Your task to perform on an android device: turn off priority inbox in the gmail app Image 0: 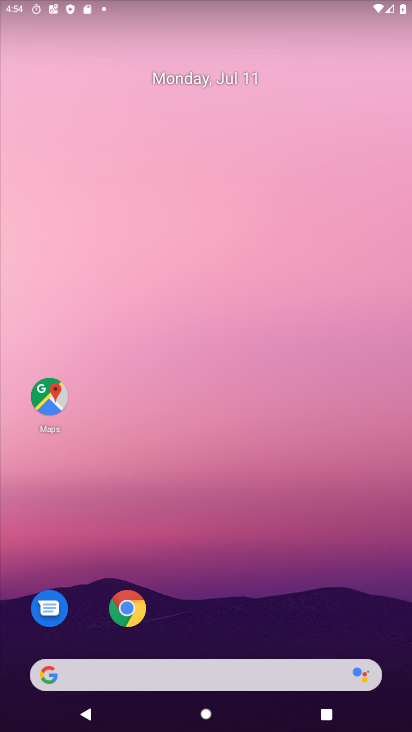
Step 0: drag from (268, 675) to (270, 243)
Your task to perform on an android device: turn off priority inbox in the gmail app Image 1: 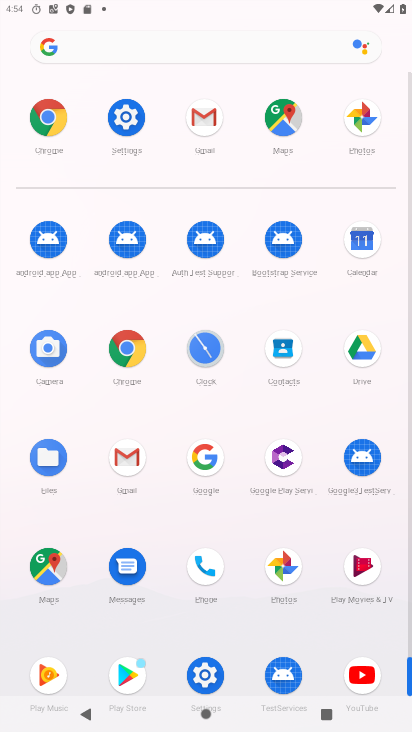
Step 1: click (127, 457)
Your task to perform on an android device: turn off priority inbox in the gmail app Image 2: 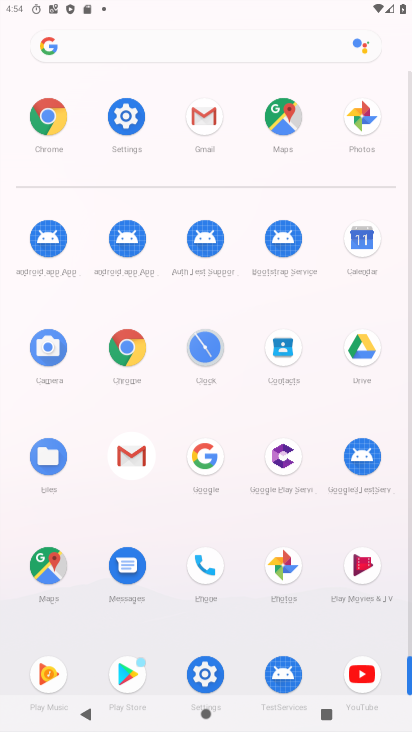
Step 2: click (126, 458)
Your task to perform on an android device: turn off priority inbox in the gmail app Image 3: 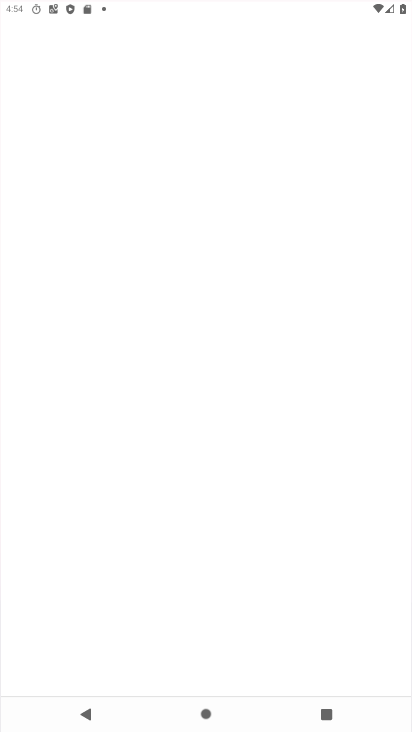
Step 3: click (130, 457)
Your task to perform on an android device: turn off priority inbox in the gmail app Image 4: 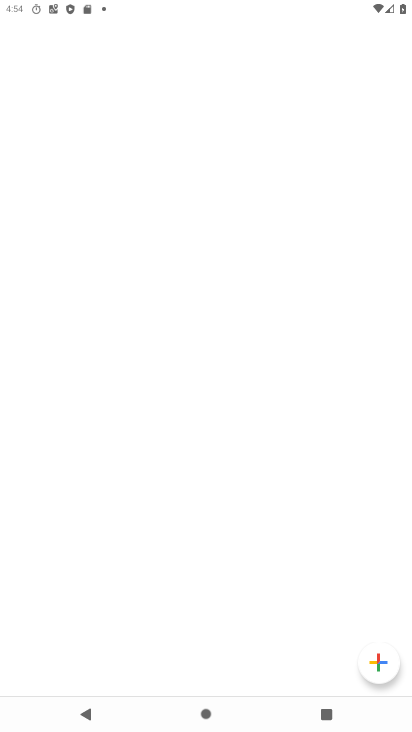
Step 4: click (132, 457)
Your task to perform on an android device: turn off priority inbox in the gmail app Image 5: 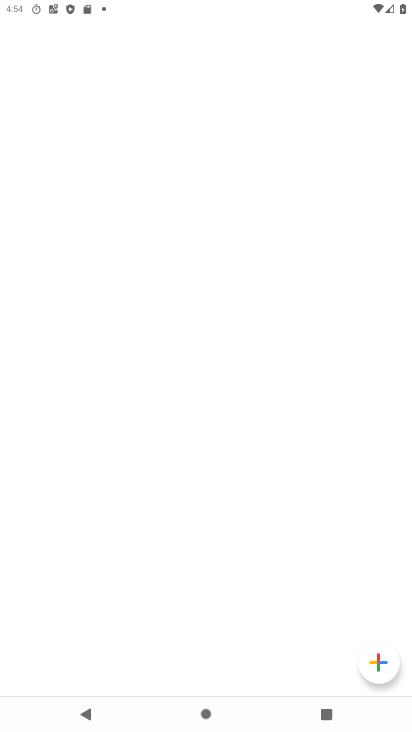
Step 5: click (132, 457)
Your task to perform on an android device: turn off priority inbox in the gmail app Image 6: 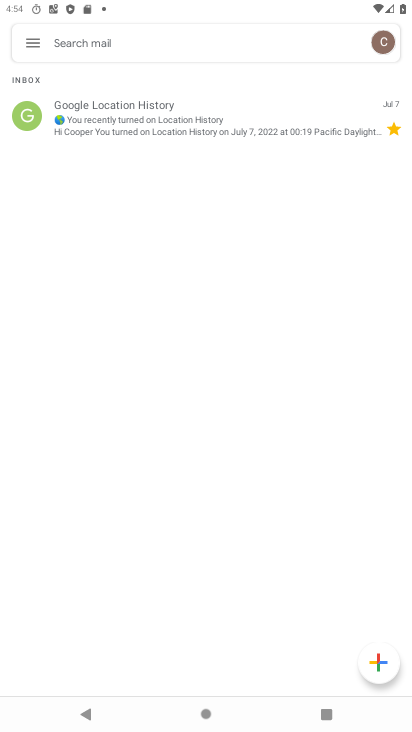
Step 6: click (37, 39)
Your task to perform on an android device: turn off priority inbox in the gmail app Image 7: 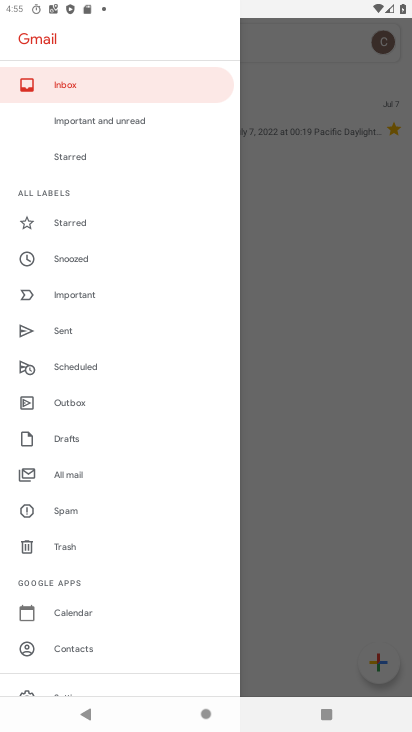
Step 7: drag from (71, 636) to (117, 220)
Your task to perform on an android device: turn off priority inbox in the gmail app Image 8: 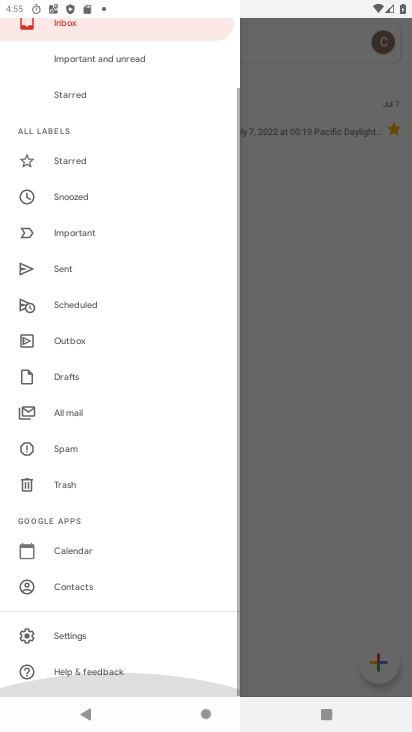
Step 8: drag from (127, 377) to (128, 183)
Your task to perform on an android device: turn off priority inbox in the gmail app Image 9: 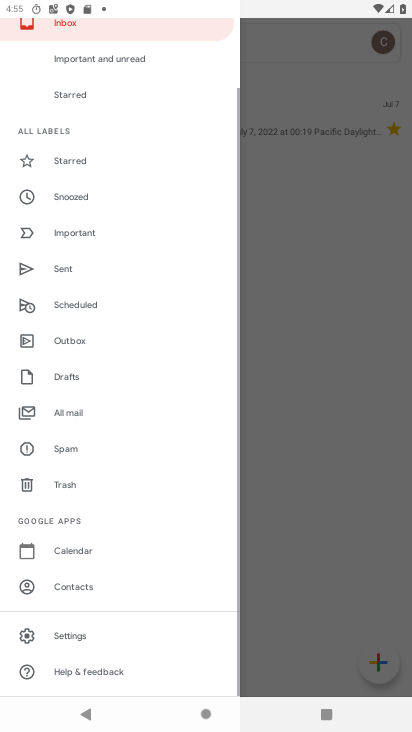
Step 9: click (63, 633)
Your task to perform on an android device: turn off priority inbox in the gmail app Image 10: 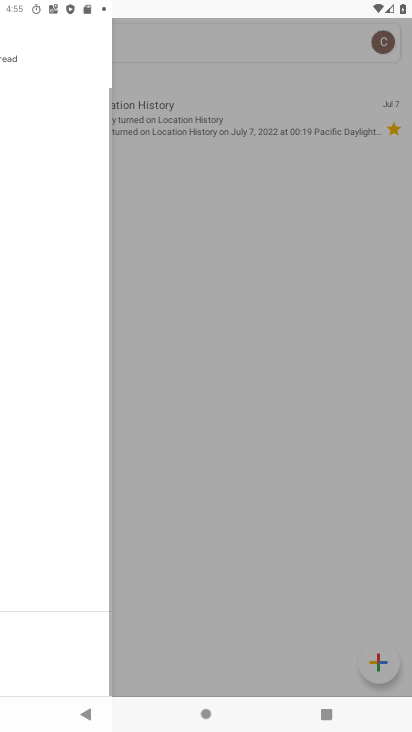
Step 10: click (63, 633)
Your task to perform on an android device: turn off priority inbox in the gmail app Image 11: 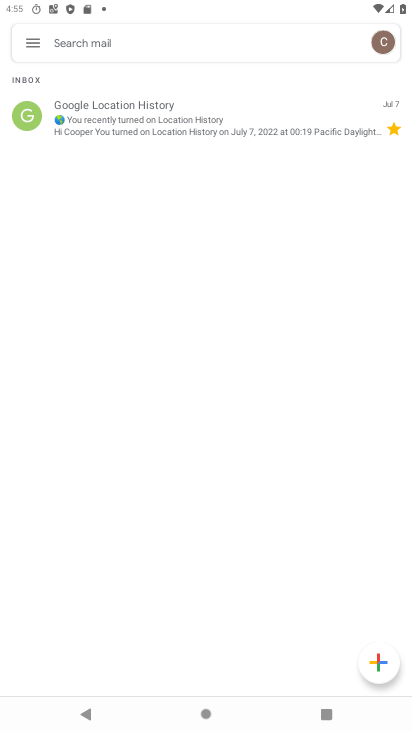
Step 11: click (64, 634)
Your task to perform on an android device: turn off priority inbox in the gmail app Image 12: 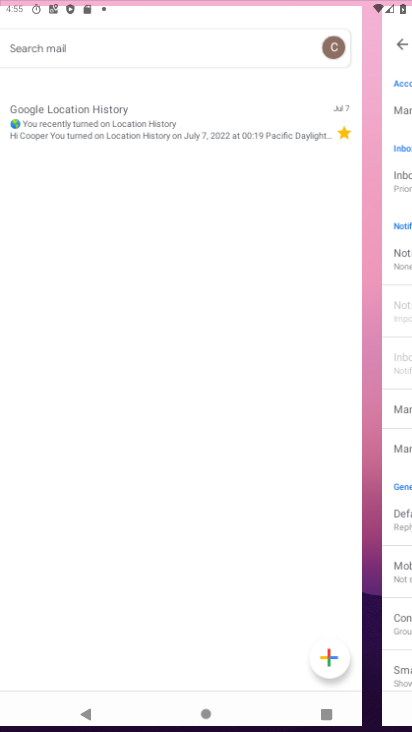
Step 12: click (72, 629)
Your task to perform on an android device: turn off priority inbox in the gmail app Image 13: 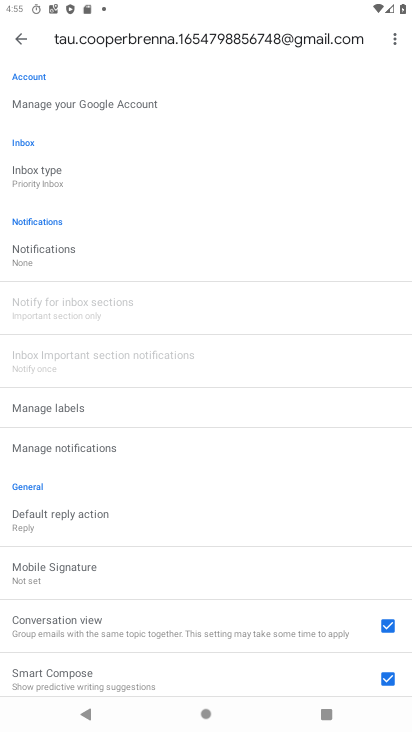
Step 13: click (32, 181)
Your task to perform on an android device: turn off priority inbox in the gmail app Image 14: 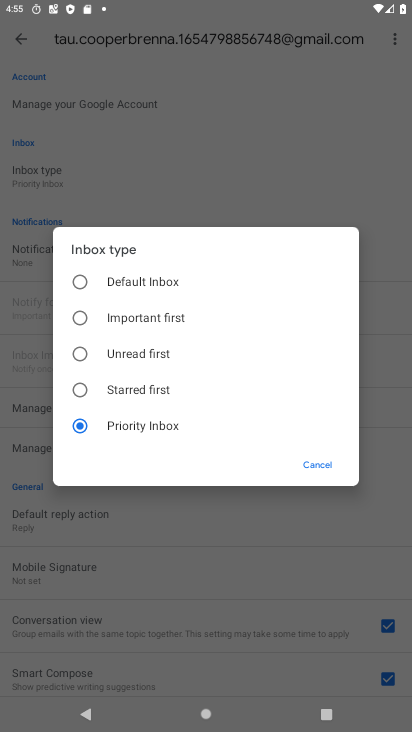
Step 14: click (81, 383)
Your task to perform on an android device: turn off priority inbox in the gmail app Image 15: 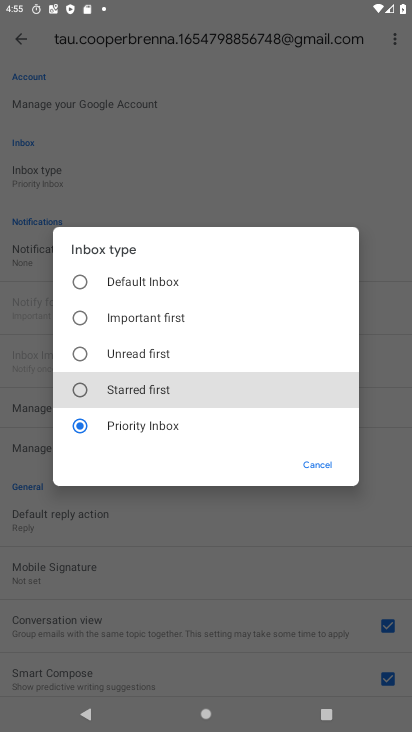
Step 15: click (81, 383)
Your task to perform on an android device: turn off priority inbox in the gmail app Image 16: 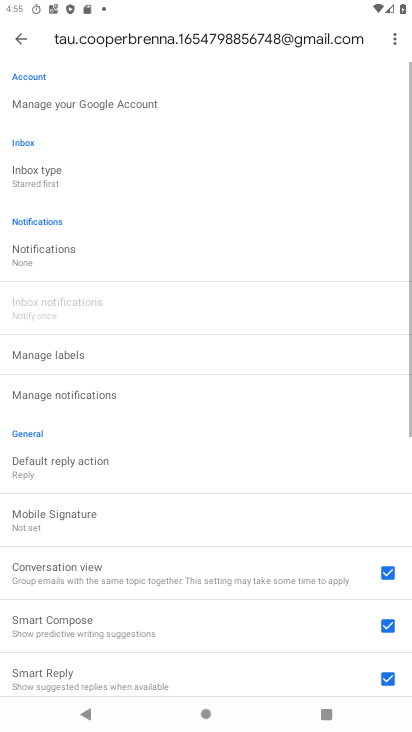
Step 16: click (82, 384)
Your task to perform on an android device: turn off priority inbox in the gmail app Image 17: 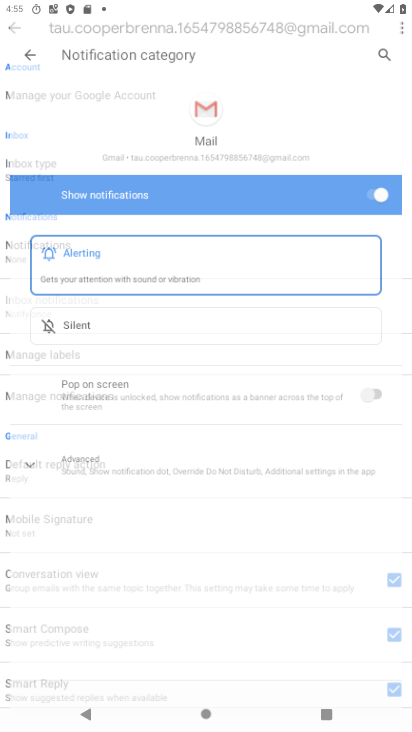
Step 17: task complete